Your task to perform on an android device: stop showing notifications on the lock screen Image 0: 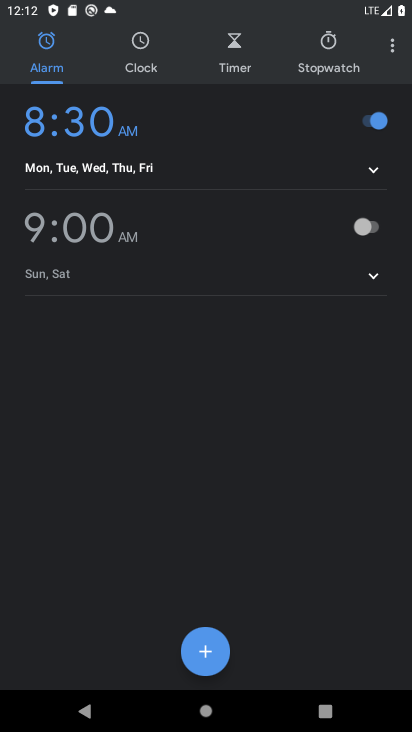
Step 0: press home button
Your task to perform on an android device: stop showing notifications on the lock screen Image 1: 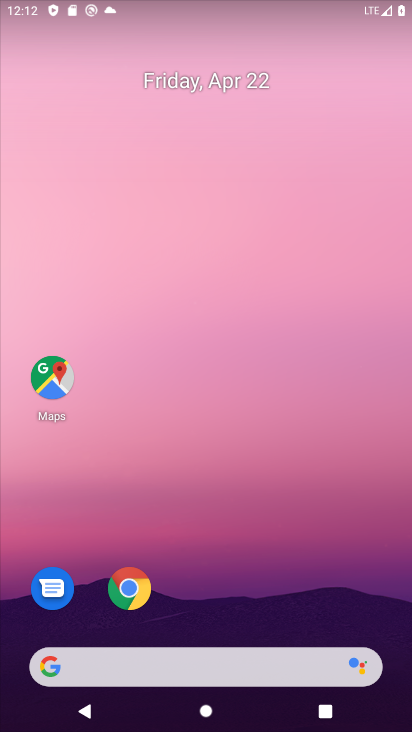
Step 1: drag from (254, 686) to (313, 212)
Your task to perform on an android device: stop showing notifications on the lock screen Image 2: 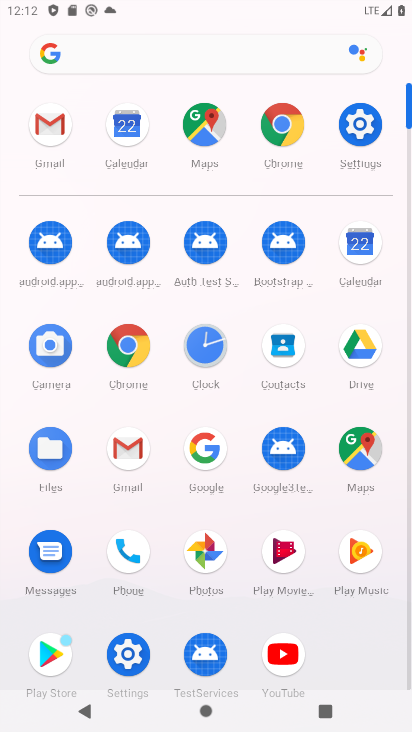
Step 2: click (369, 135)
Your task to perform on an android device: stop showing notifications on the lock screen Image 3: 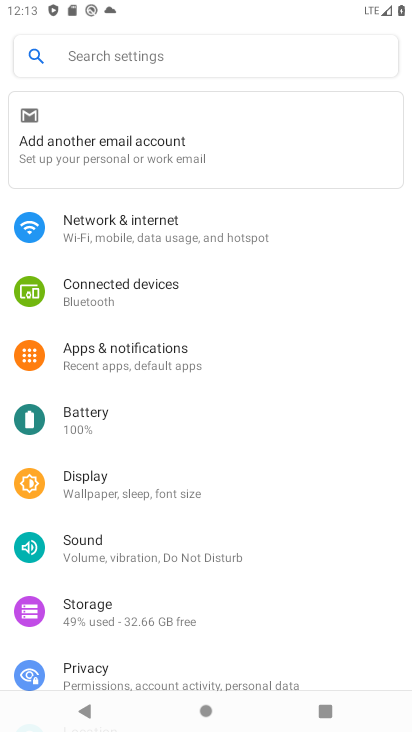
Step 3: click (147, 64)
Your task to perform on an android device: stop showing notifications on the lock screen Image 4: 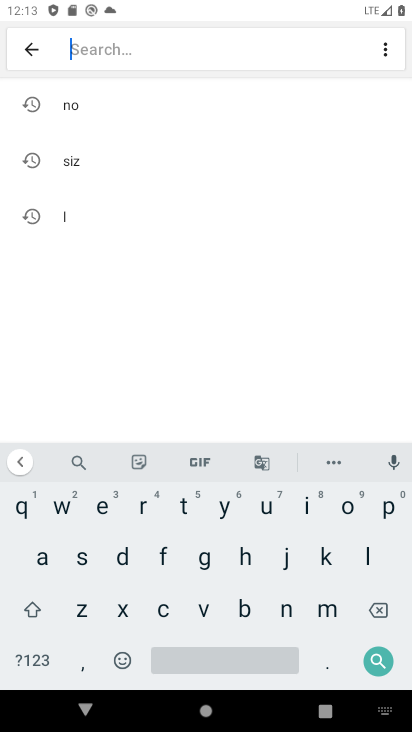
Step 4: click (105, 105)
Your task to perform on an android device: stop showing notifications on the lock screen Image 5: 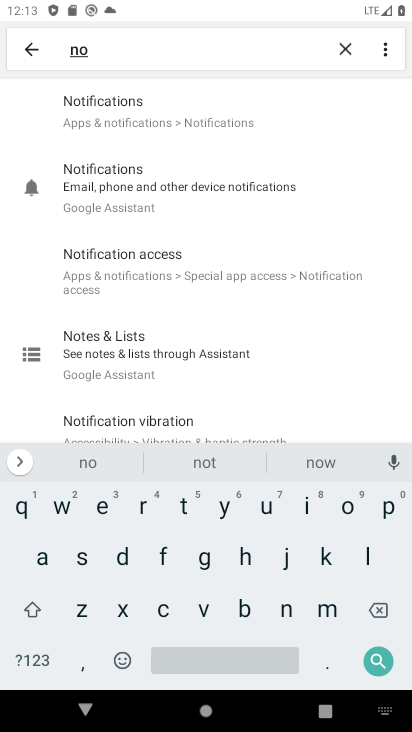
Step 5: click (169, 122)
Your task to perform on an android device: stop showing notifications on the lock screen Image 6: 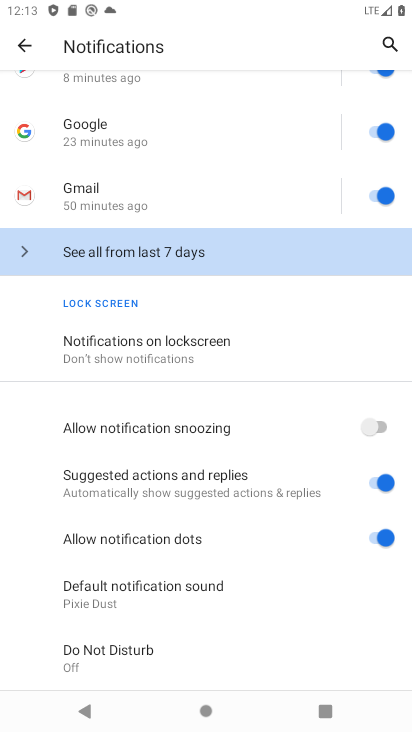
Step 6: click (93, 330)
Your task to perform on an android device: stop showing notifications on the lock screen Image 7: 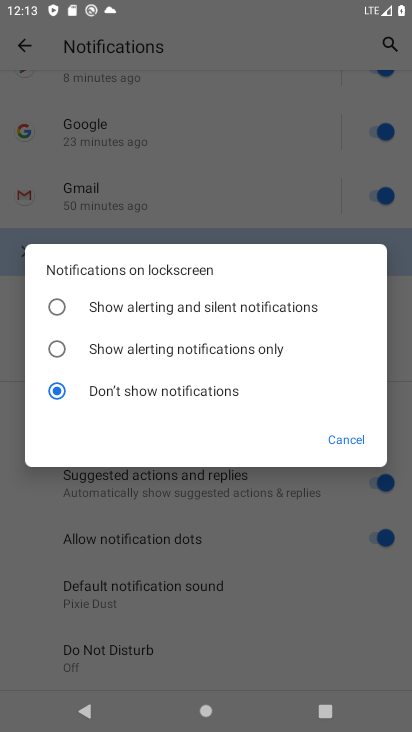
Step 7: task complete